Your task to perform on an android device: set the stopwatch Image 0: 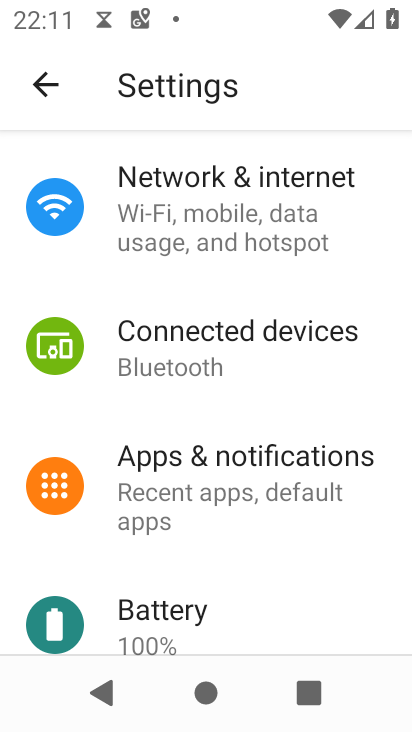
Step 0: press home button
Your task to perform on an android device: set the stopwatch Image 1: 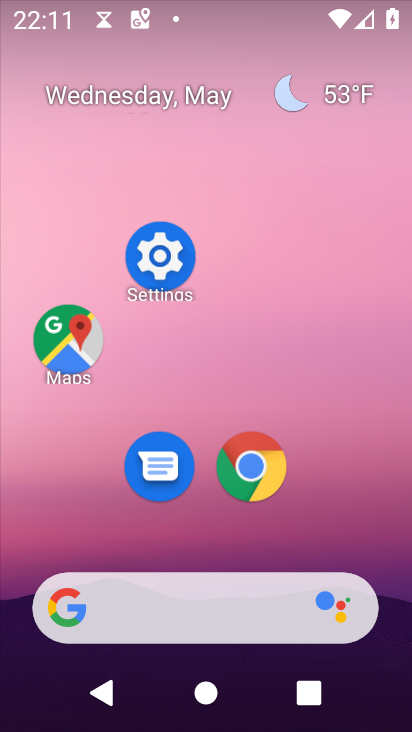
Step 1: drag from (205, 516) to (251, 227)
Your task to perform on an android device: set the stopwatch Image 2: 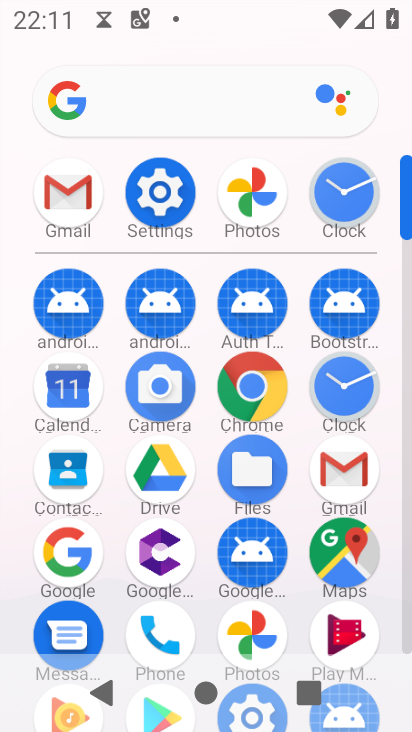
Step 2: click (343, 361)
Your task to perform on an android device: set the stopwatch Image 3: 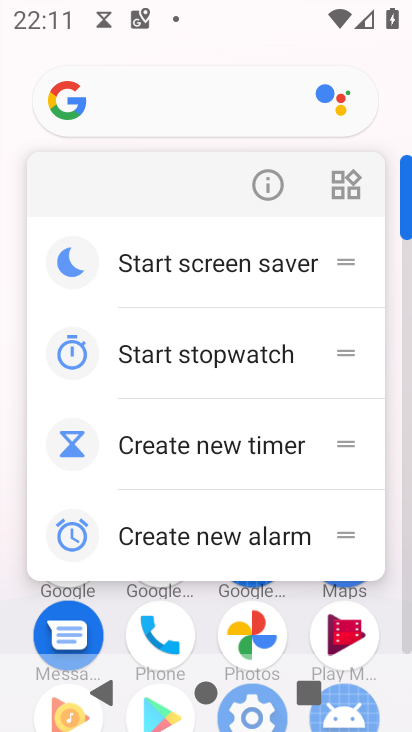
Step 3: click (203, 350)
Your task to perform on an android device: set the stopwatch Image 4: 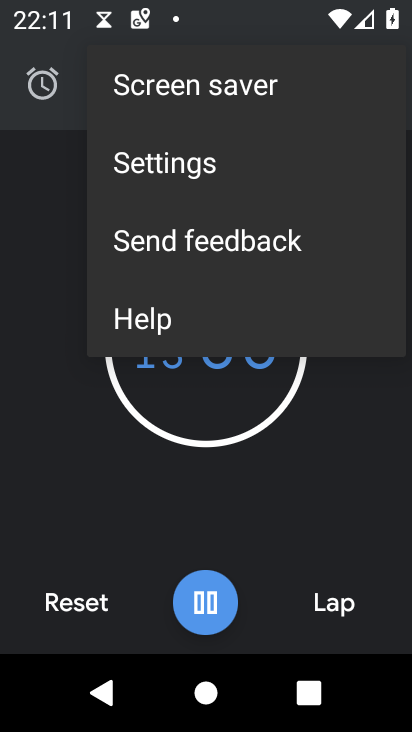
Step 4: click (246, 163)
Your task to perform on an android device: set the stopwatch Image 5: 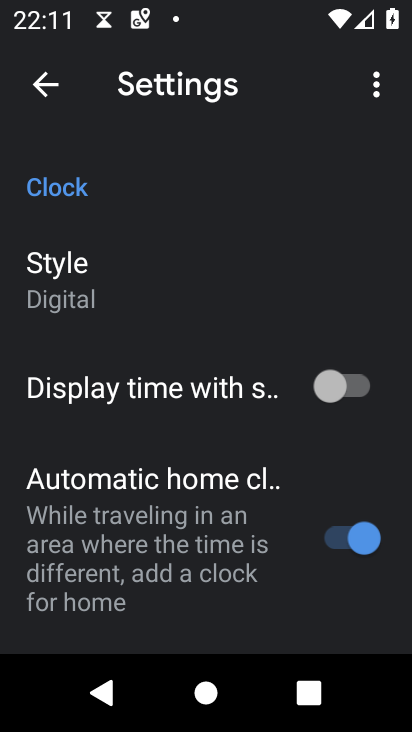
Step 5: click (32, 98)
Your task to perform on an android device: set the stopwatch Image 6: 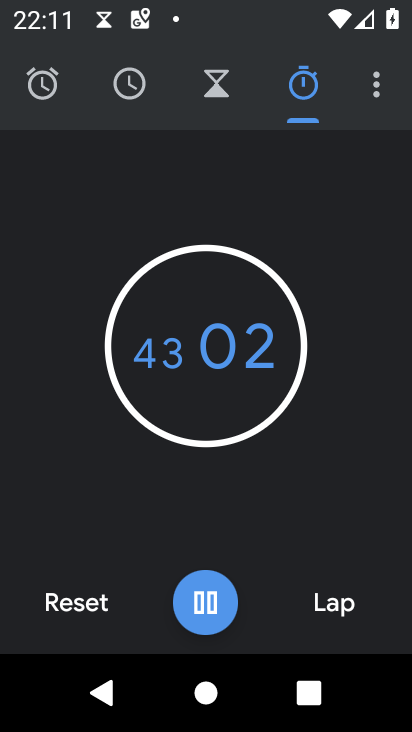
Step 6: click (198, 580)
Your task to perform on an android device: set the stopwatch Image 7: 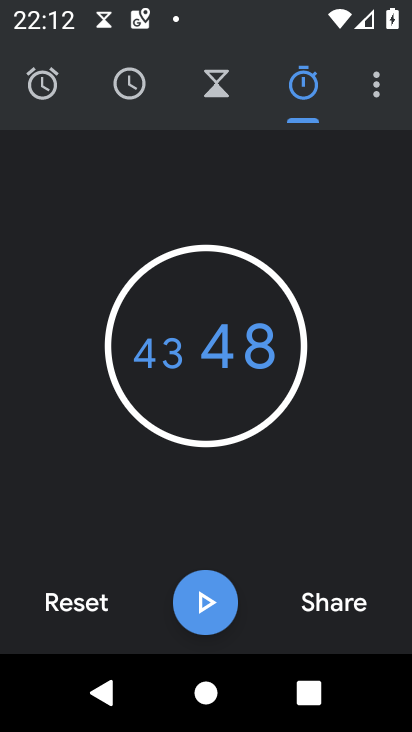
Step 7: click (204, 614)
Your task to perform on an android device: set the stopwatch Image 8: 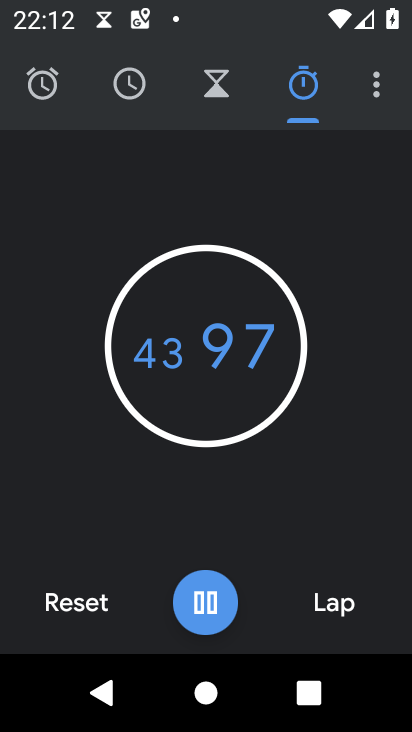
Step 8: task complete